Your task to perform on an android device: turn on airplane mode Image 0: 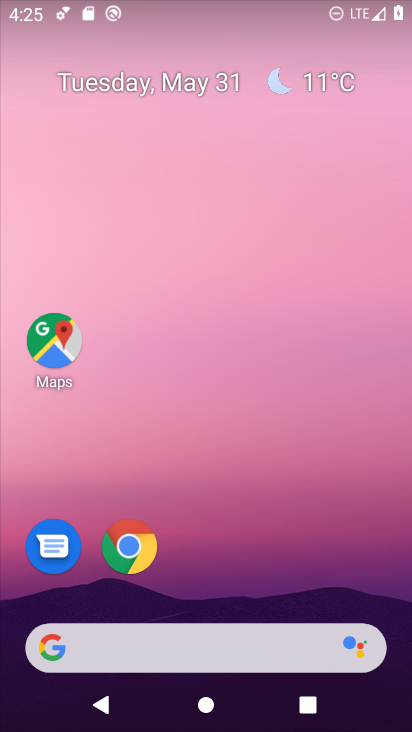
Step 0: drag from (269, 515) to (139, 0)
Your task to perform on an android device: turn on airplane mode Image 1: 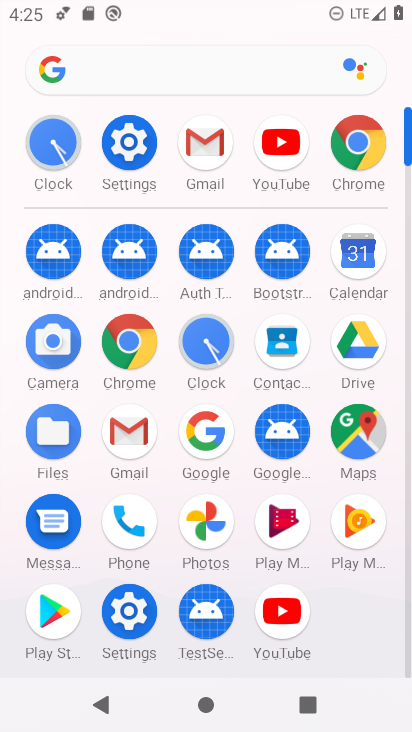
Step 1: click (125, 104)
Your task to perform on an android device: turn on airplane mode Image 2: 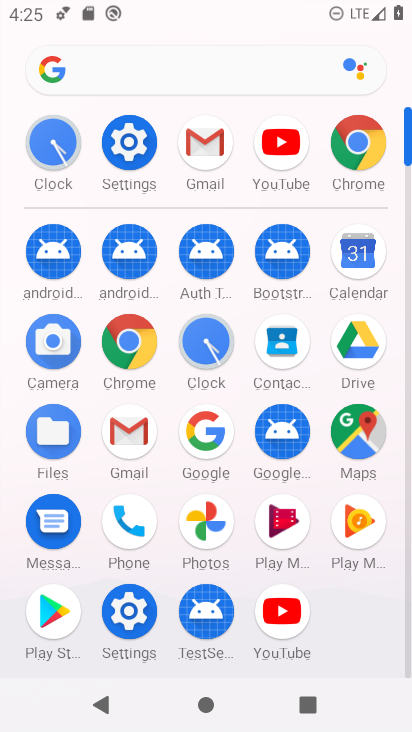
Step 2: click (129, 133)
Your task to perform on an android device: turn on airplane mode Image 3: 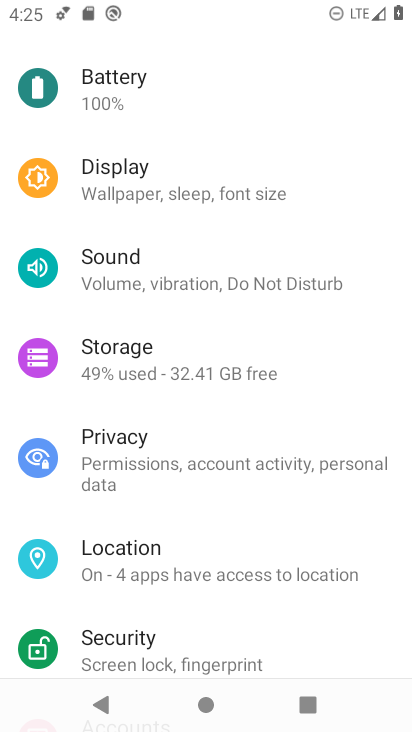
Step 3: drag from (223, 100) to (239, 546)
Your task to perform on an android device: turn on airplane mode Image 4: 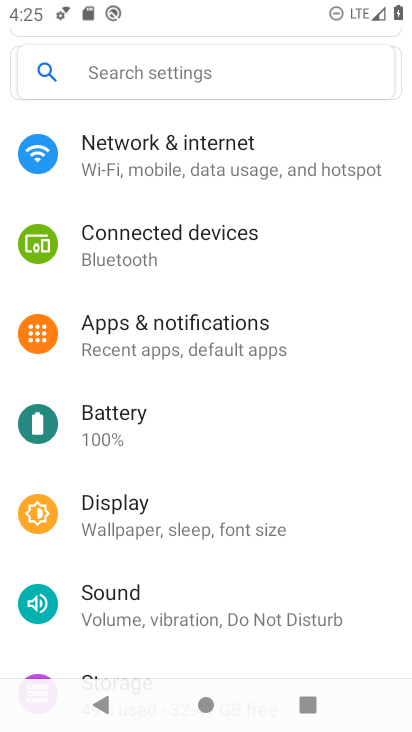
Step 4: click (156, 157)
Your task to perform on an android device: turn on airplane mode Image 5: 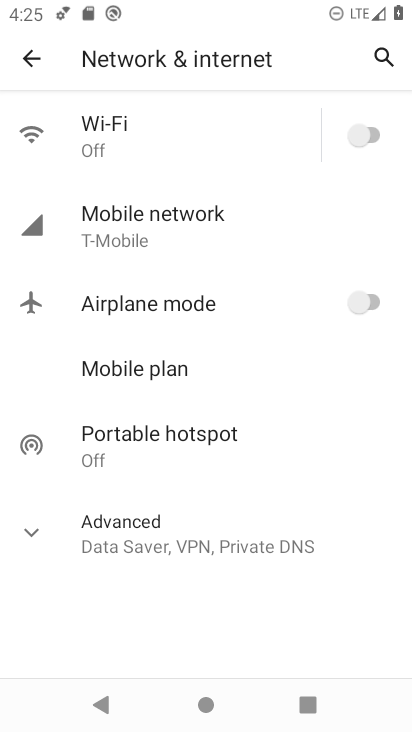
Step 5: click (354, 304)
Your task to perform on an android device: turn on airplane mode Image 6: 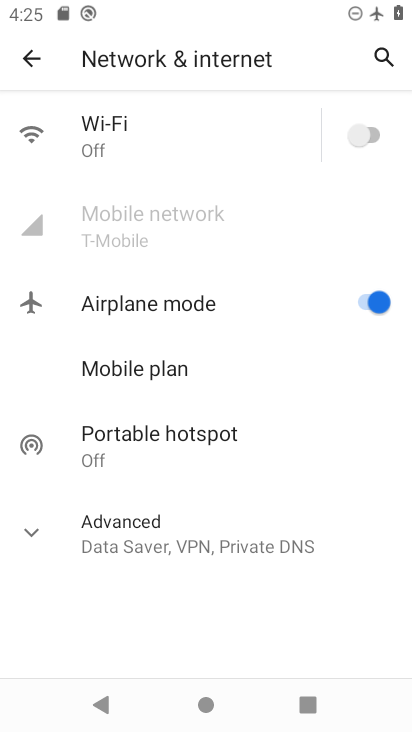
Step 6: task complete